Your task to perform on an android device: find which apps use the phone's location Image 0: 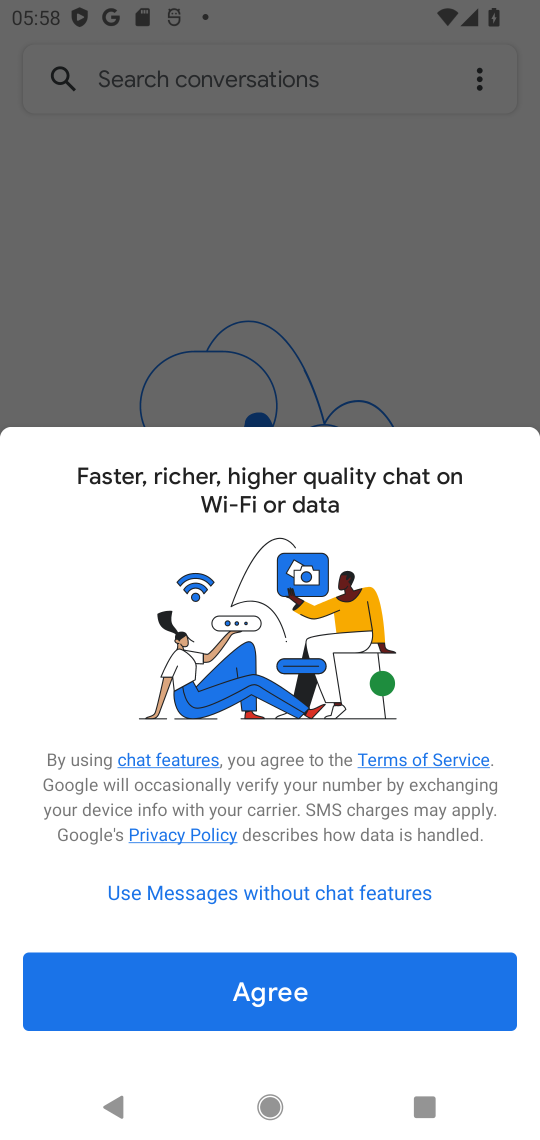
Step 0: press home button
Your task to perform on an android device: find which apps use the phone's location Image 1: 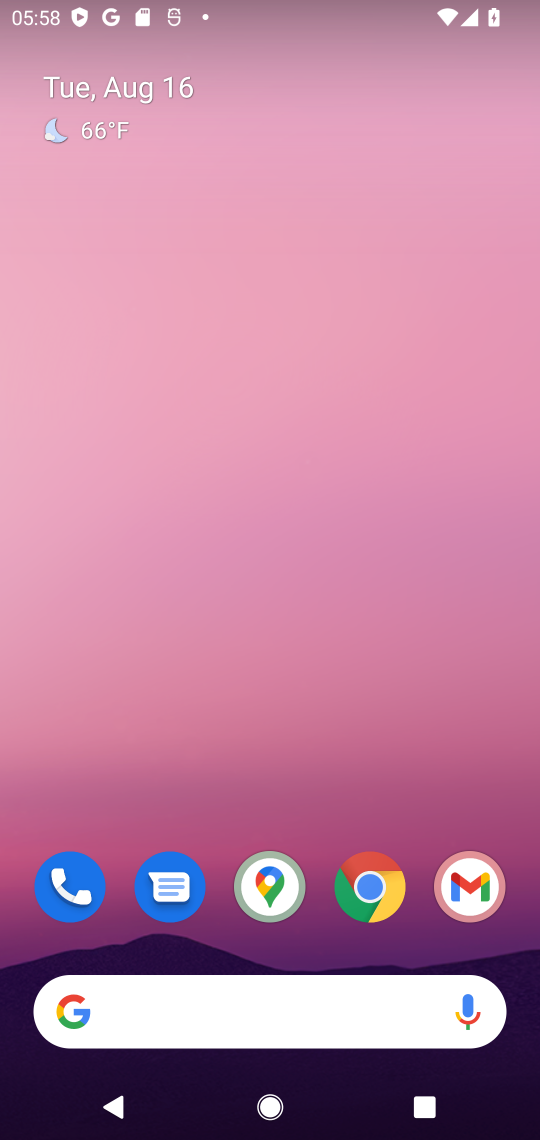
Step 1: drag from (313, 578) to (343, 7)
Your task to perform on an android device: find which apps use the phone's location Image 2: 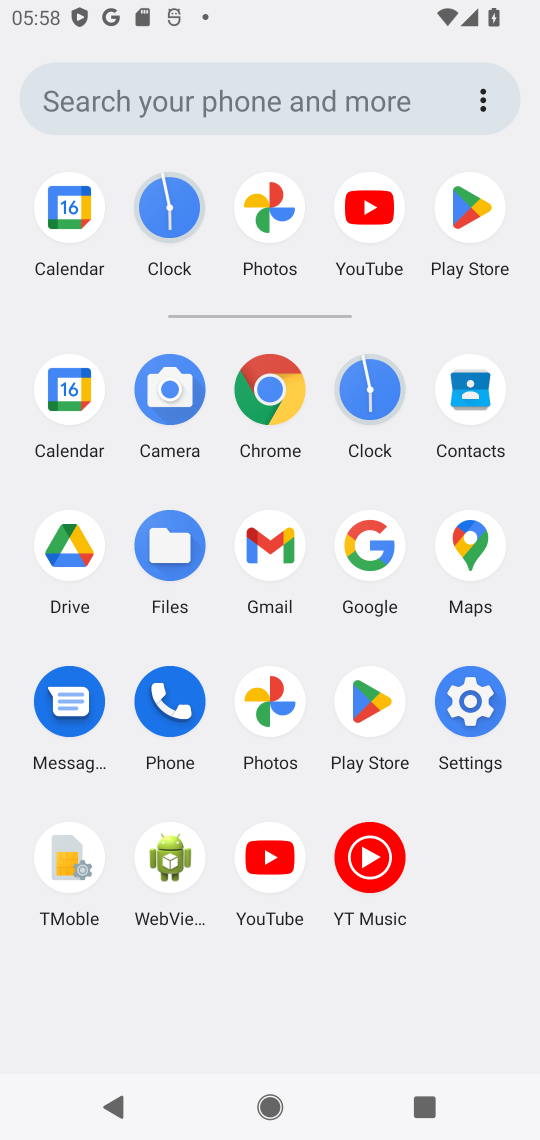
Step 2: click (458, 692)
Your task to perform on an android device: find which apps use the phone's location Image 3: 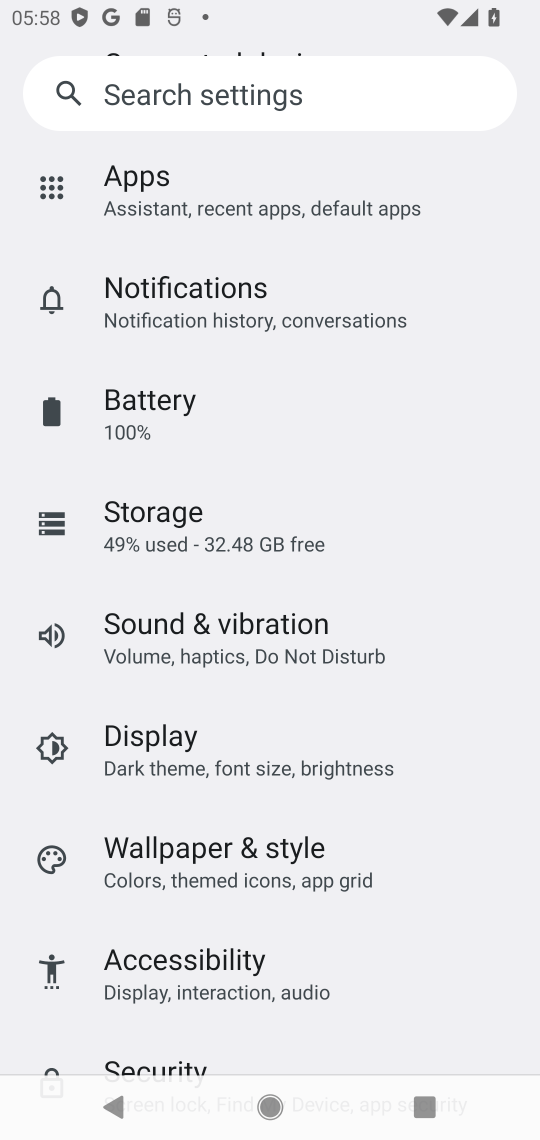
Step 3: drag from (388, 830) to (473, 253)
Your task to perform on an android device: find which apps use the phone's location Image 4: 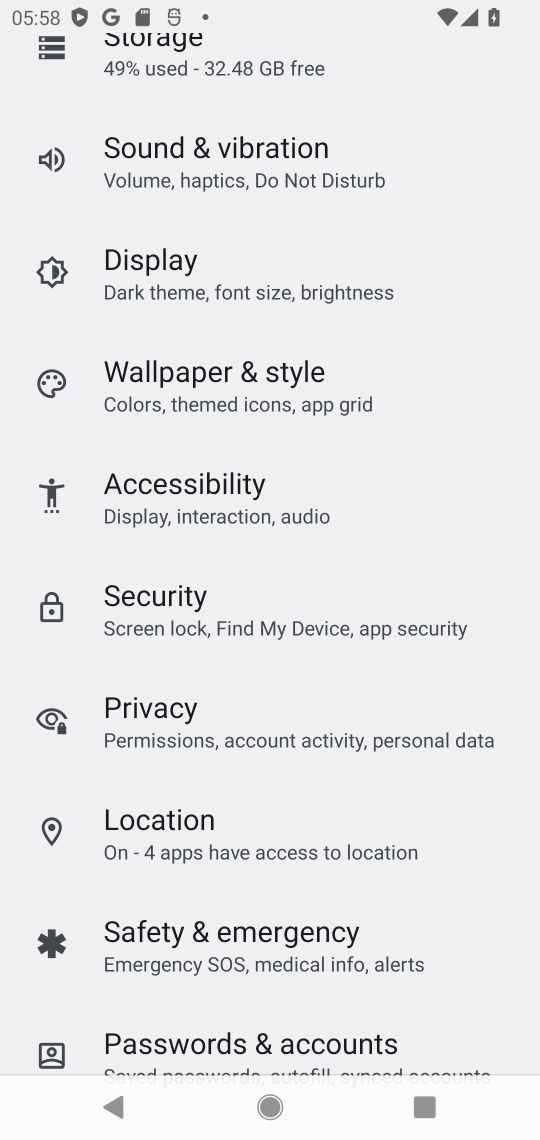
Step 4: click (189, 831)
Your task to perform on an android device: find which apps use the phone's location Image 5: 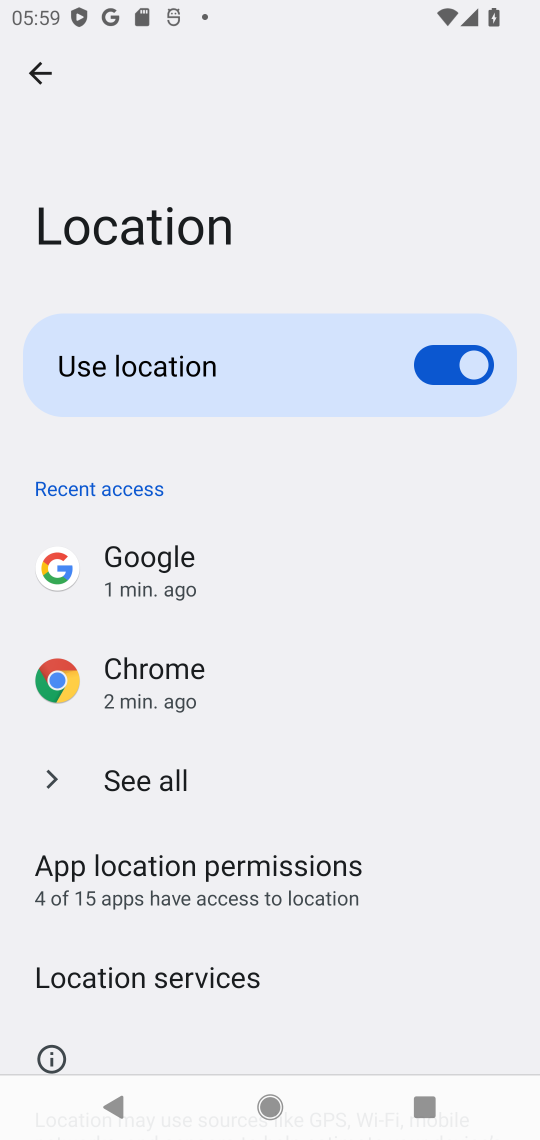
Step 5: drag from (338, 771) to (323, 313)
Your task to perform on an android device: find which apps use the phone's location Image 6: 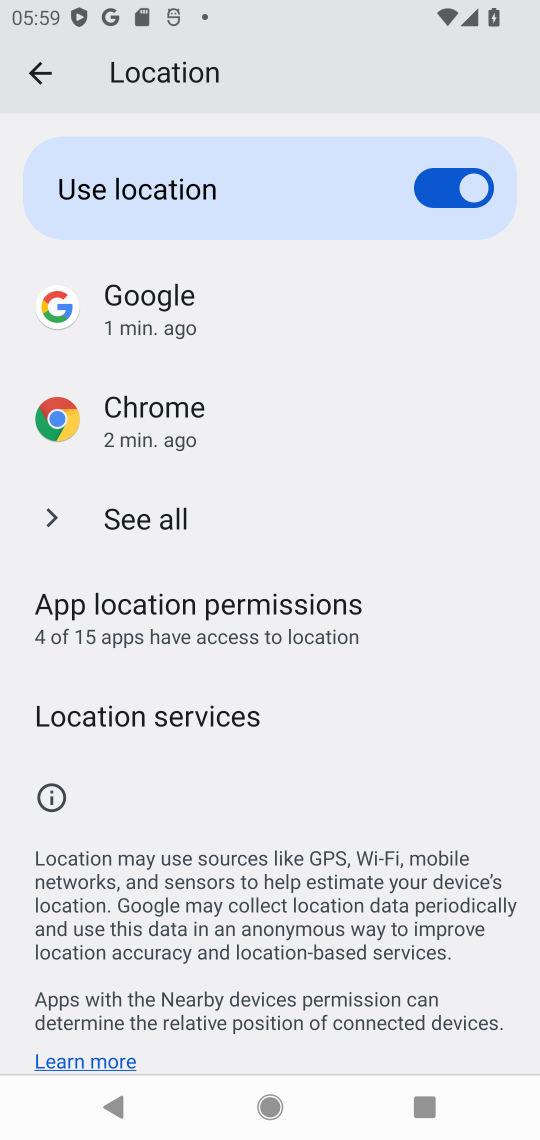
Step 6: click (161, 614)
Your task to perform on an android device: find which apps use the phone's location Image 7: 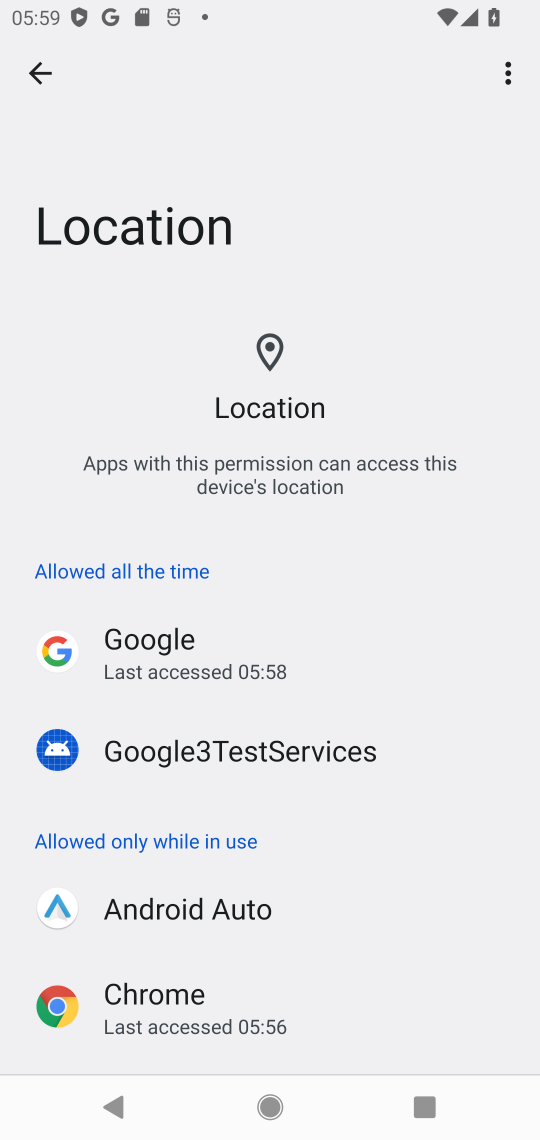
Step 7: task complete